Your task to perform on an android device: Open Google Maps Image 0: 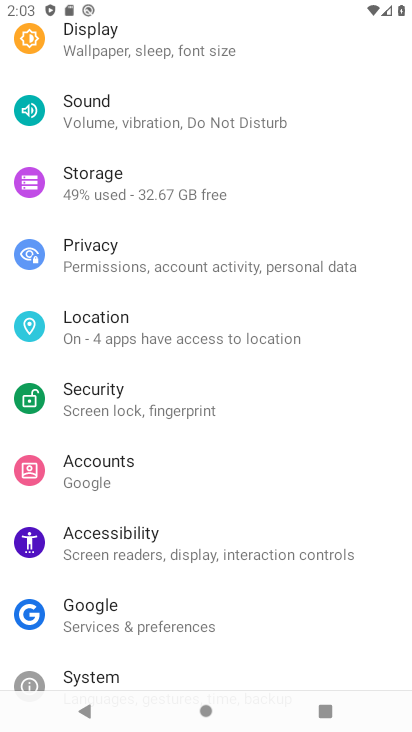
Step 0: press home button
Your task to perform on an android device: Open Google Maps Image 1: 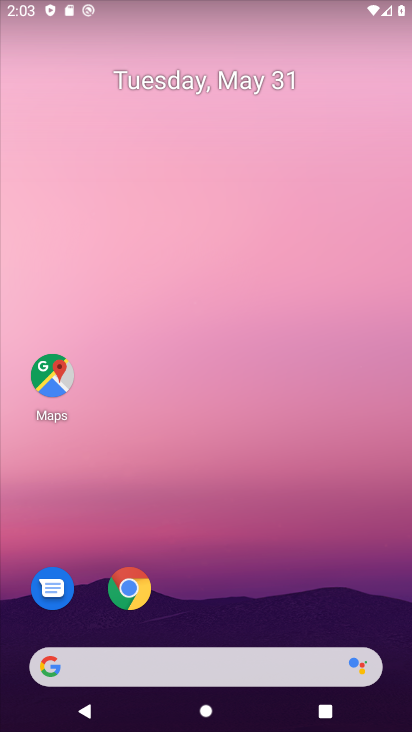
Step 1: click (59, 383)
Your task to perform on an android device: Open Google Maps Image 2: 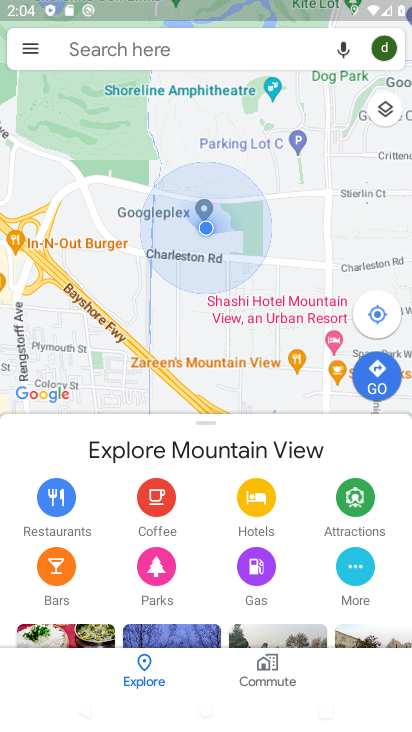
Step 2: task complete